Your task to perform on an android device: Open privacy settings Image 0: 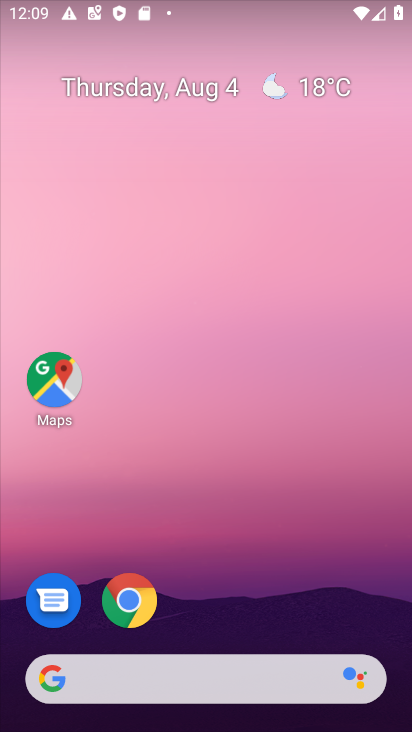
Step 0: drag from (142, 688) to (272, 120)
Your task to perform on an android device: Open privacy settings Image 1: 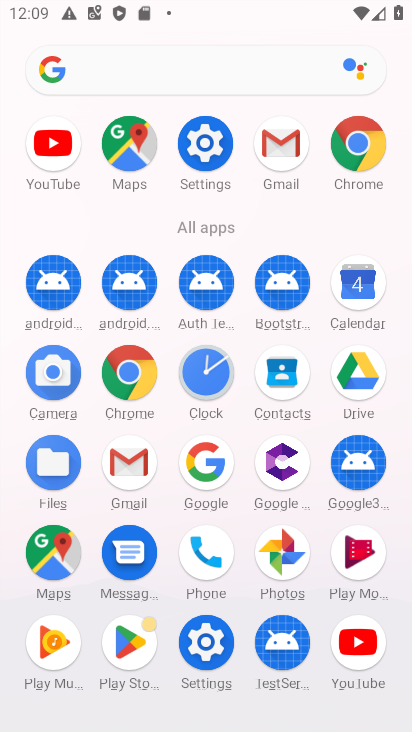
Step 1: click (210, 145)
Your task to perform on an android device: Open privacy settings Image 2: 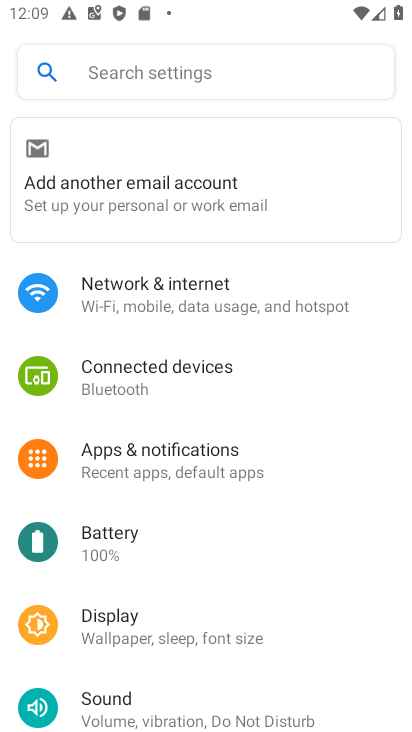
Step 2: drag from (169, 606) to (250, 227)
Your task to perform on an android device: Open privacy settings Image 3: 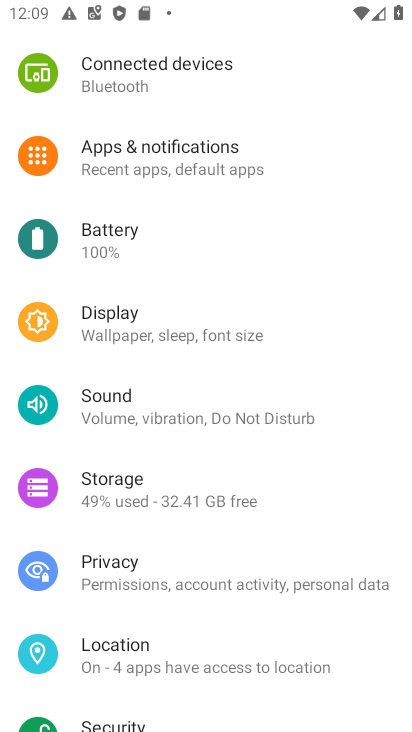
Step 3: click (130, 569)
Your task to perform on an android device: Open privacy settings Image 4: 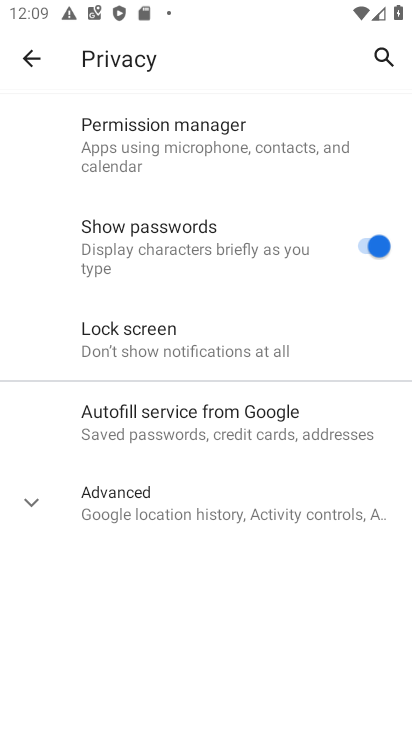
Step 4: task complete